Your task to perform on an android device: Play the last video I watched on Youtube Image 0: 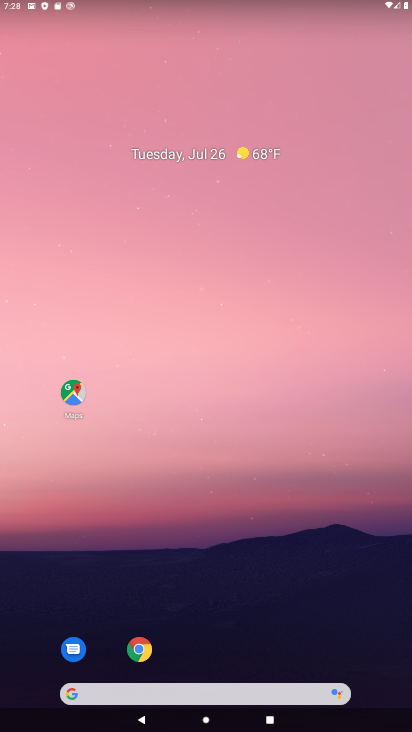
Step 0: drag from (239, 699) to (361, 81)
Your task to perform on an android device: Play the last video I watched on Youtube Image 1: 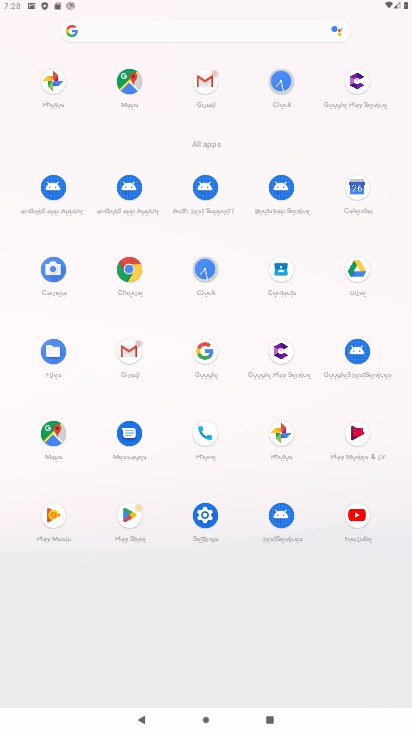
Step 1: click (363, 514)
Your task to perform on an android device: Play the last video I watched on Youtube Image 2: 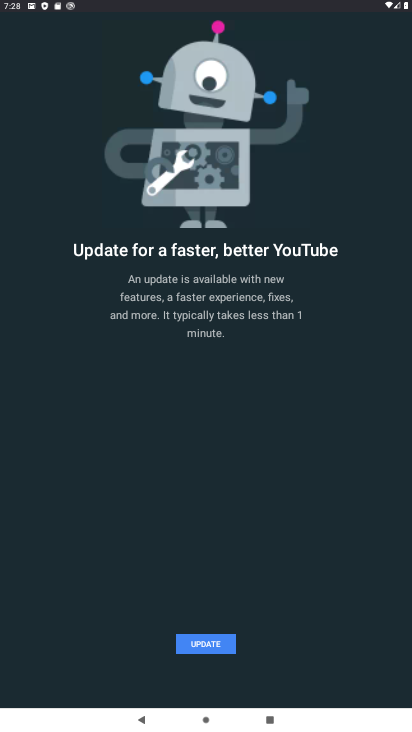
Step 2: click (187, 643)
Your task to perform on an android device: Play the last video I watched on Youtube Image 3: 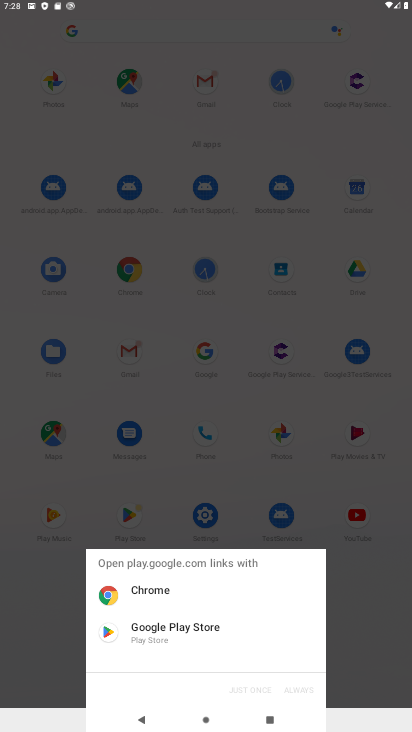
Step 3: click (180, 633)
Your task to perform on an android device: Play the last video I watched on Youtube Image 4: 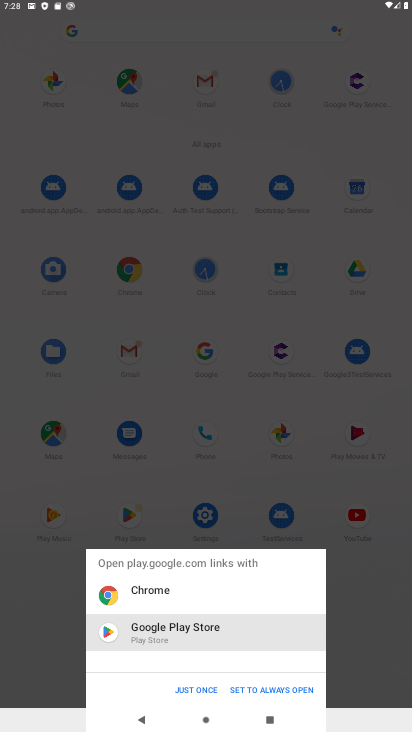
Step 4: click (201, 686)
Your task to perform on an android device: Play the last video I watched on Youtube Image 5: 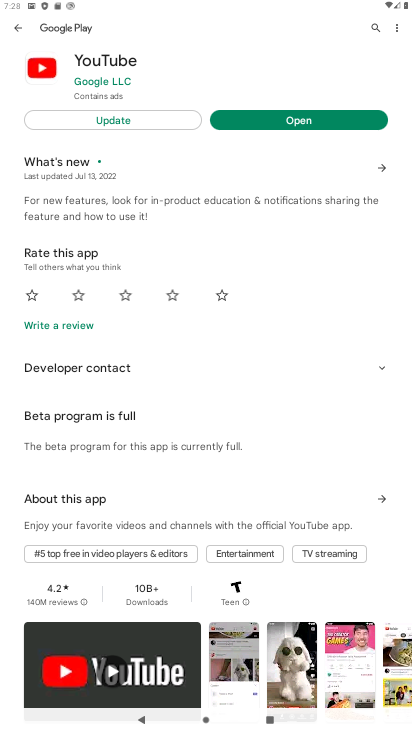
Step 5: click (88, 123)
Your task to perform on an android device: Play the last video I watched on Youtube Image 6: 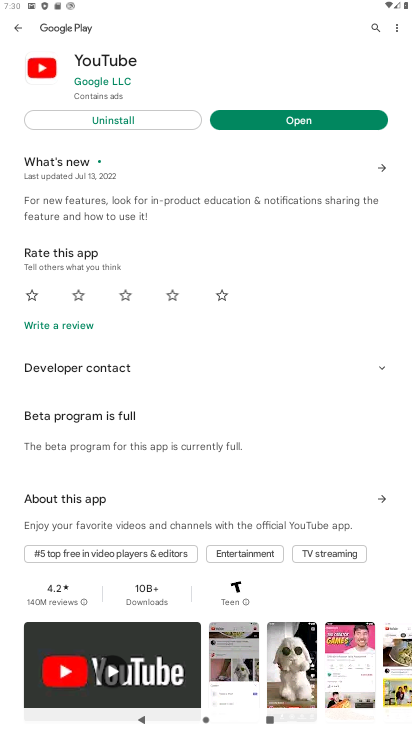
Step 6: click (309, 124)
Your task to perform on an android device: Play the last video I watched on Youtube Image 7: 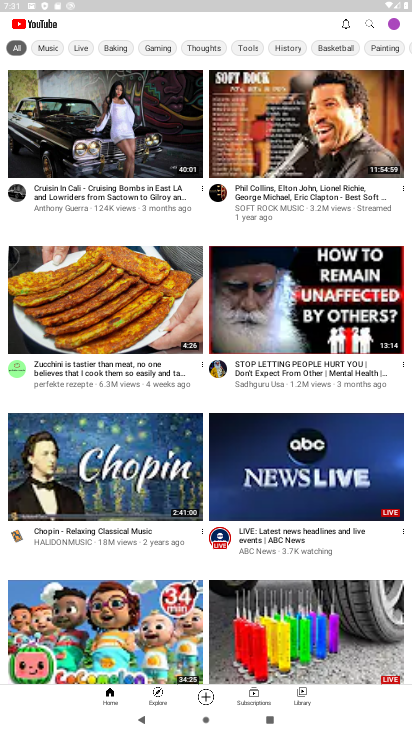
Step 7: click (322, 702)
Your task to perform on an android device: Play the last video I watched on Youtube Image 8: 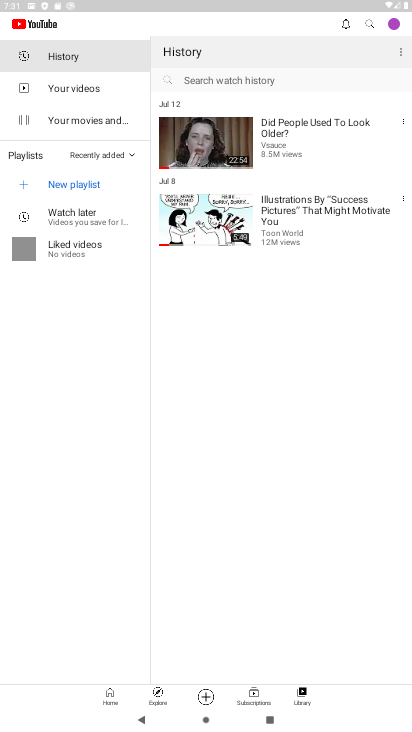
Step 8: click (223, 142)
Your task to perform on an android device: Play the last video I watched on Youtube Image 9: 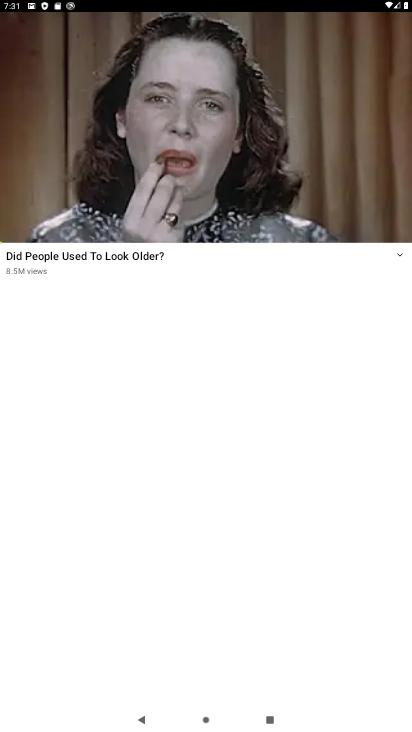
Step 9: task complete